Your task to perform on an android device: open a bookmark in the chrome app Image 0: 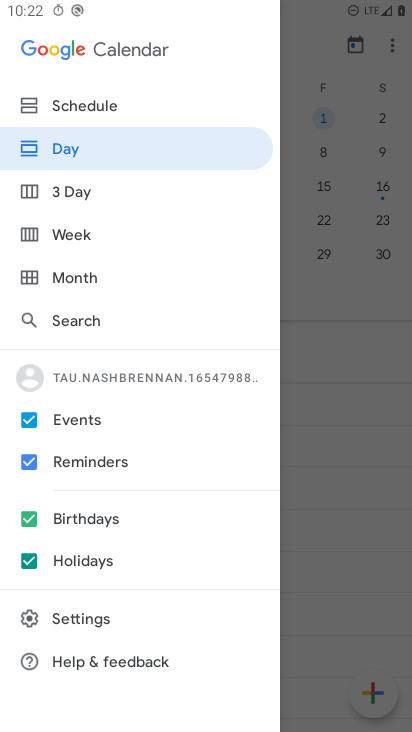
Step 0: press home button
Your task to perform on an android device: open a bookmark in the chrome app Image 1: 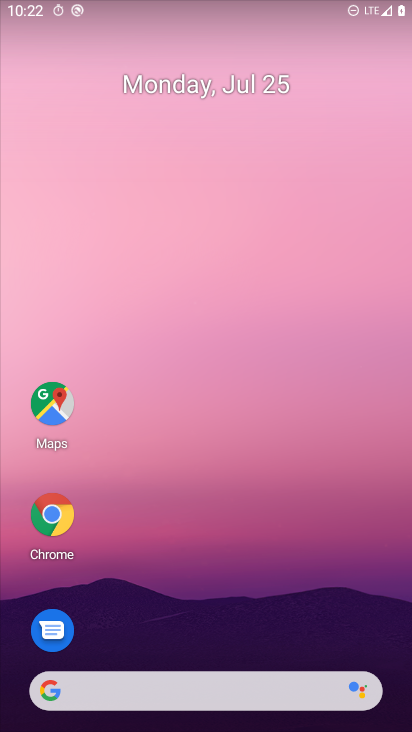
Step 1: click (0, 684)
Your task to perform on an android device: open a bookmark in the chrome app Image 2: 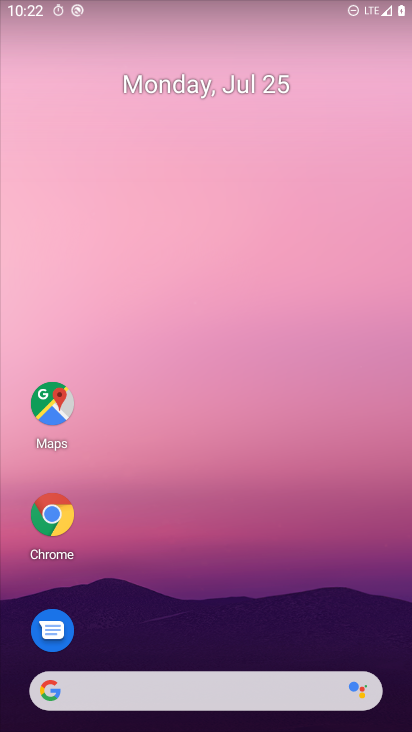
Step 2: drag from (107, 431) to (182, 100)
Your task to perform on an android device: open a bookmark in the chrome app Image 3: 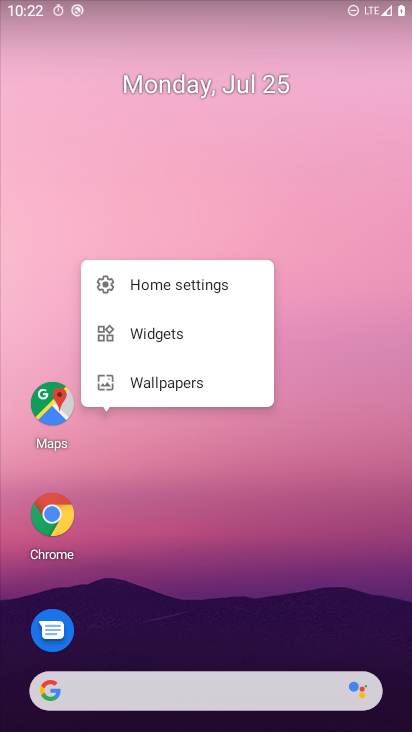
Step 3: click (209, 253)
Your task to perform on an android device: open a bookmark in the chrome app Image 4: 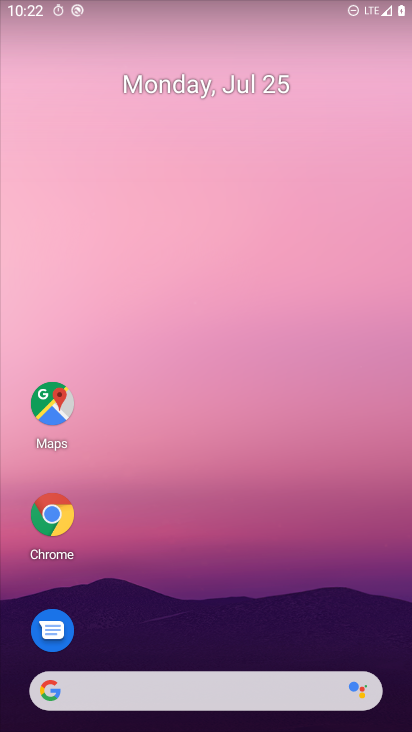
Step 4: click (48, 512)
Your task to perform on an android device: open a bookmark in the chrome app Image 5: 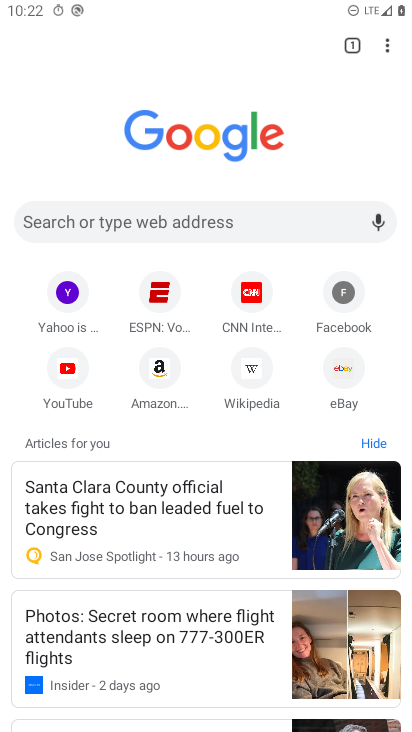
Step 5: click (385, 40)
Your task to perform on an android device: open a bookmark in the chrome app Image 6: 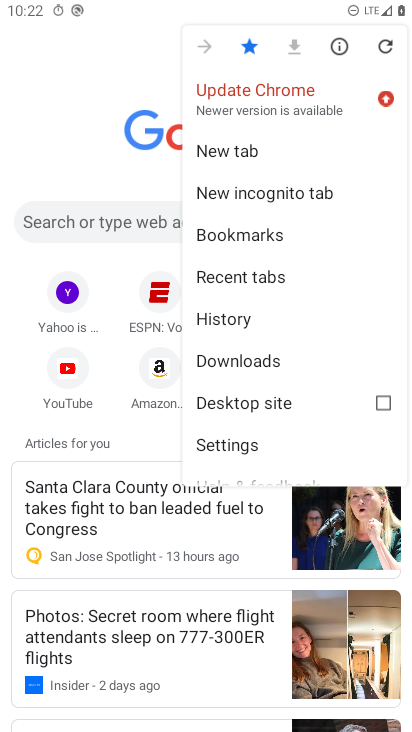
Step 6: click (225, 236)
Your task to perform on an android device: open a bookmark in the chrome app Image 7: 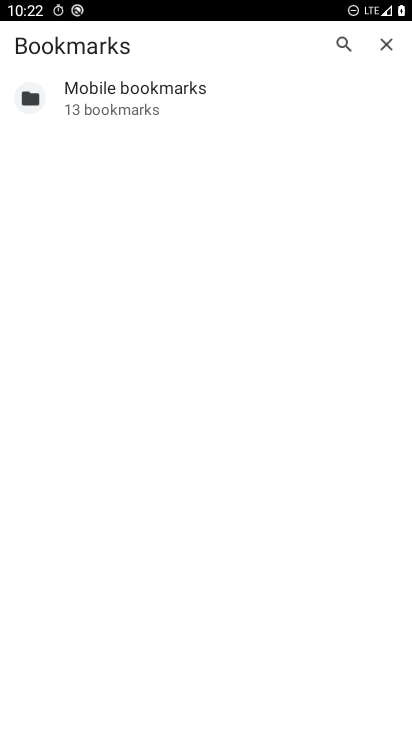
Step 7: click (97, 97)
Your task to perform on an android device: open a bookmark in the chrome app Image 8: 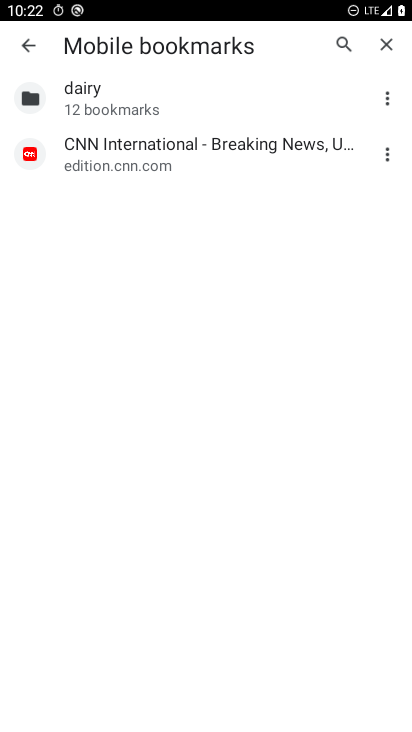
Step 8: task complete